Your task to perform on an android device: turn vacation reply on in the gmail app Image 0: 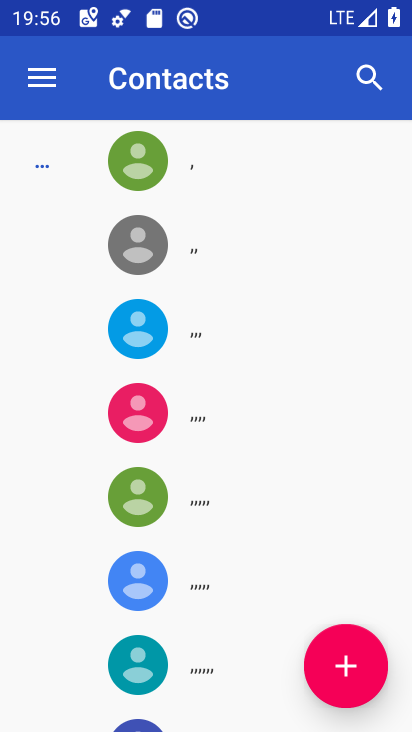
Step 0: press home button
Your task to perform on an android device: turn vacation reply on in the gmail app Image 1: 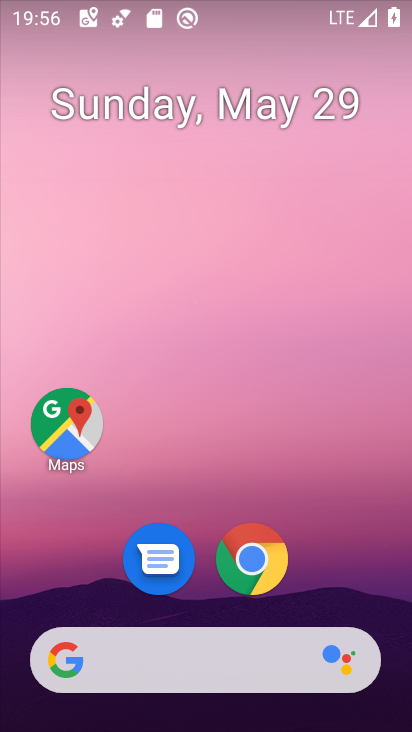
Step 1: drag from (381, 601) to (390, 214)
Your task to perform on an android device: turn vacation reply on in the gmail app Image 2: 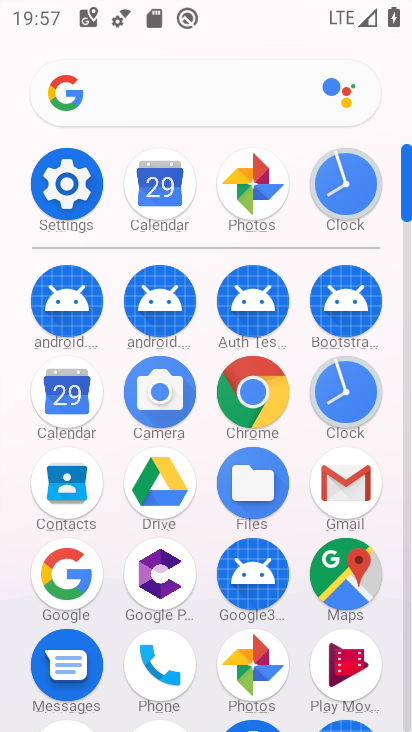
Step 2: click (341, 481)
Your task to perform on an android device: turn vacation reply on in the gmail app Image 3: 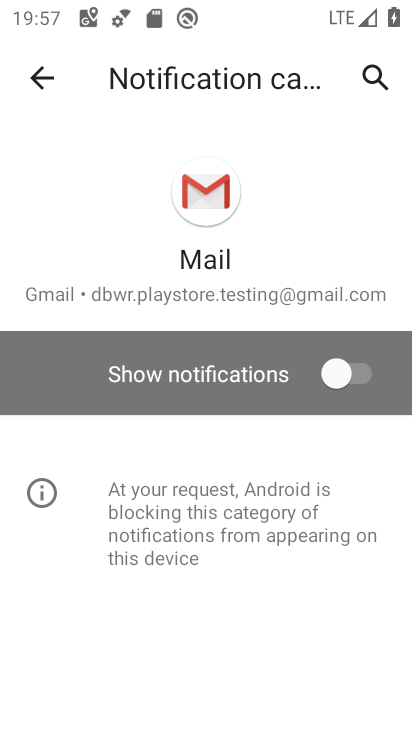
Step 3: click (21, 86)
Your task to perform on an android device: turn vacation reply on in the gmail app Image 4: 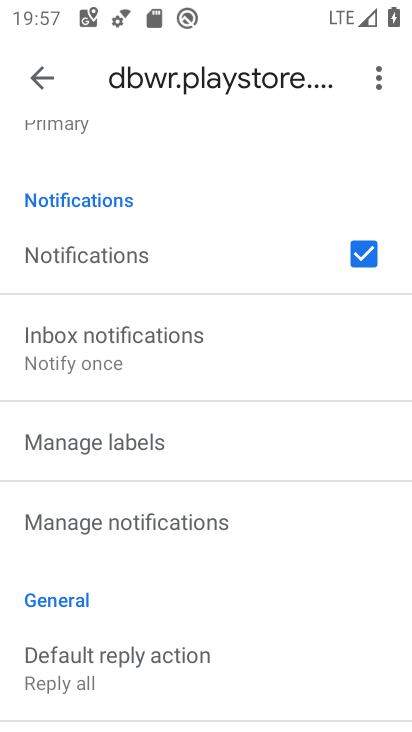
Step 4: drag from (326, 567) to (330, 450)
Your task to perform on an android device: turn vacation reply on in the gmail app Image 5: 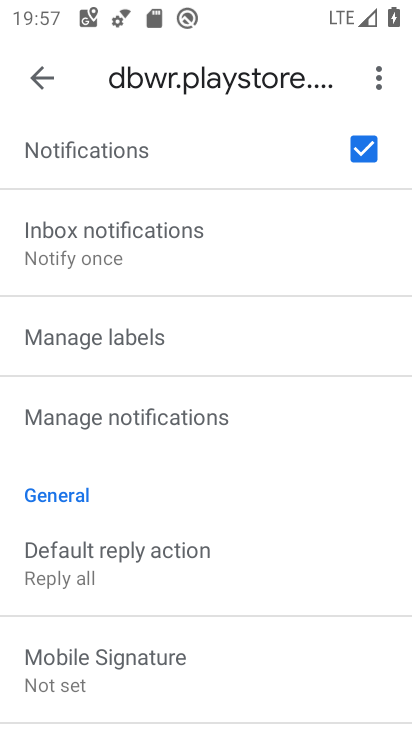
Step 5: drag from (356, 546) to (348, 494)
Your task to perform on an android device: turn vacation reply on in the gmail app Image 6: 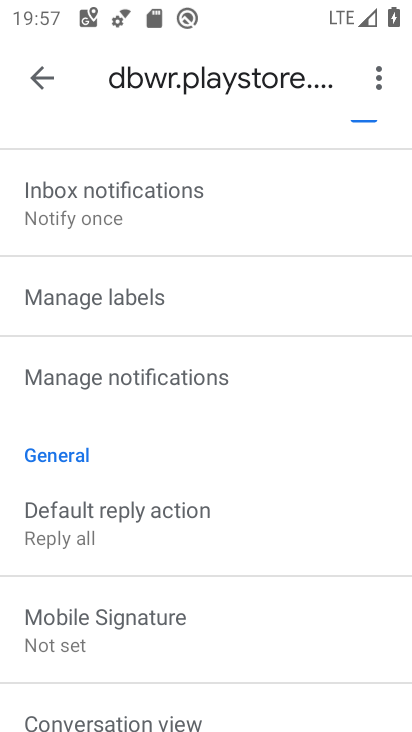
Step 6: click (365, 383)
Your task to perform on an android device: turn vacation reply on in the gmail app Image 7: 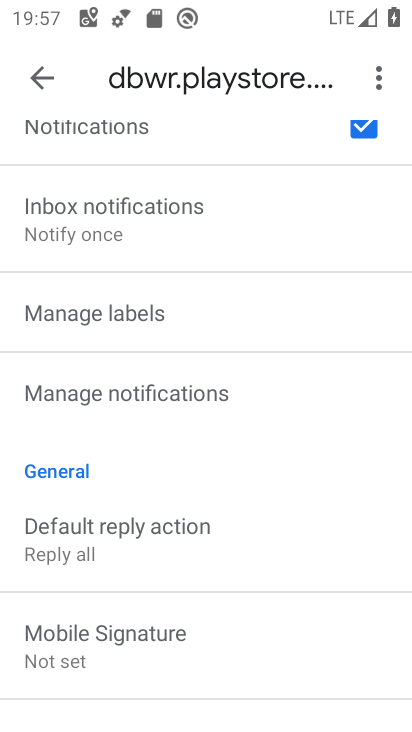
Step 7: click (377, 382)
Your task to perform on an android device: turn vacation reply on in the gmail app Image 8: 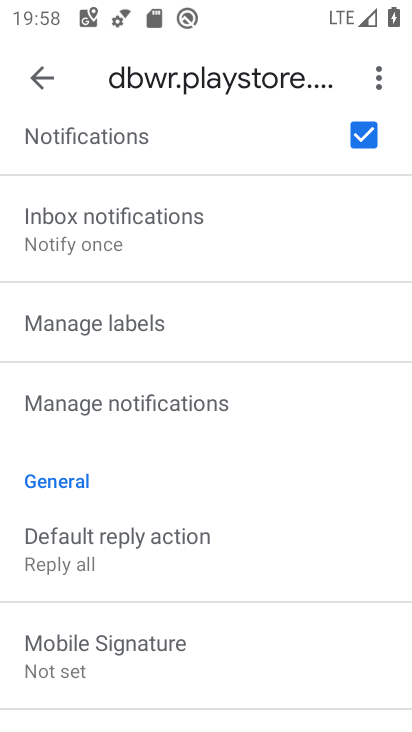
Step 8: drag from (320, 591) to (320, 485)
Your task to perform on an android device: turn vacation reply on in the gmail app Image 9: 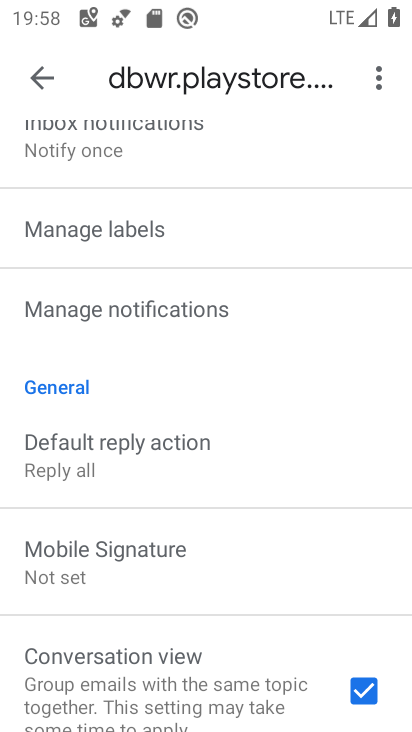
Step 9: drag from (325, 579) to (338, 500)
Your task to perform on an android device: turn vacation reply on in the gmail app Image 10: 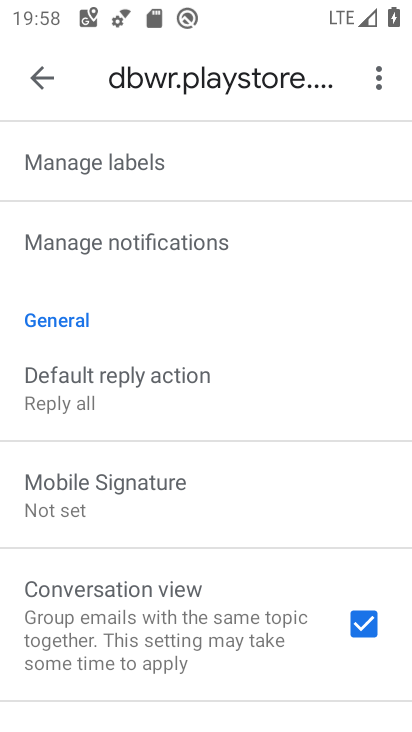
Step 10: drag from (364, 624) to (381, 523)
Your task to perform on an android device: turn vacation reply on in the gmail app Image 11: 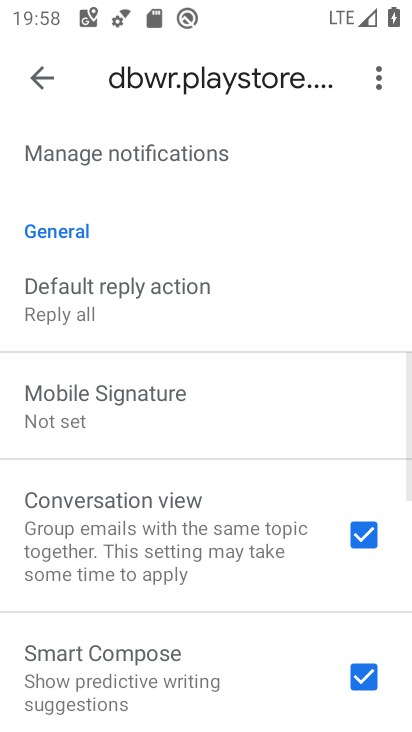
Step 11: drag from (388, 648) to (398, 527)
Your task to perform on an android device: turn vacation reply on in the gmail app Image 12: 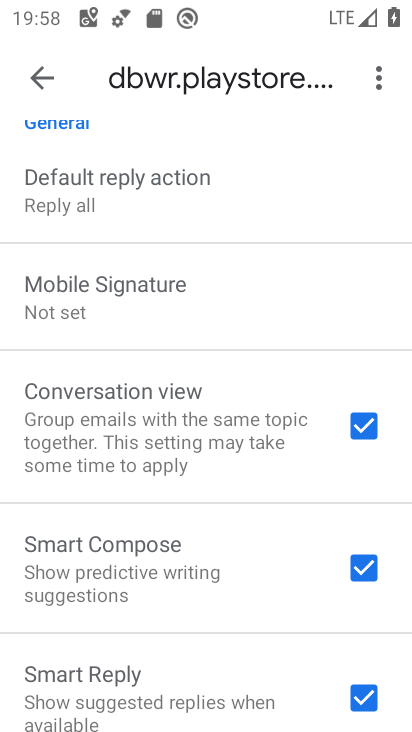
Step 12: drag from (312, 636) to (313, 552)
Your task to perform on an android device: turn vacation reply on in the gmail app Image 13: 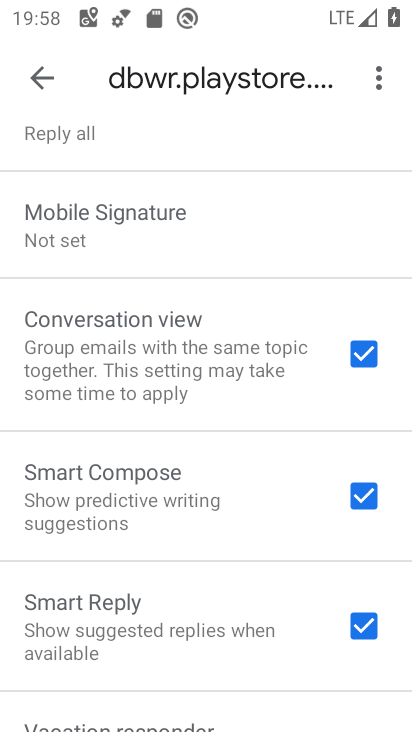
Step 13: click (343, 527)
Your task to perform on an android device: turn vacation reply on in the gmail app Image 14: 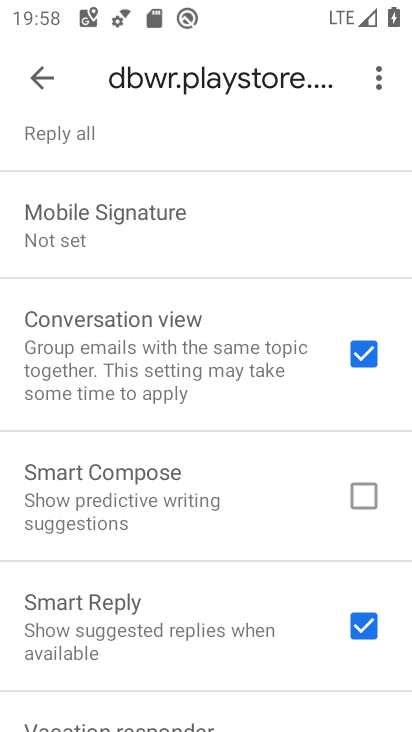
Step 14: drag from (324, 641) to (330, 517)
Your task to perform on an android device: turn vacation reply on in the gmail app Image 15: 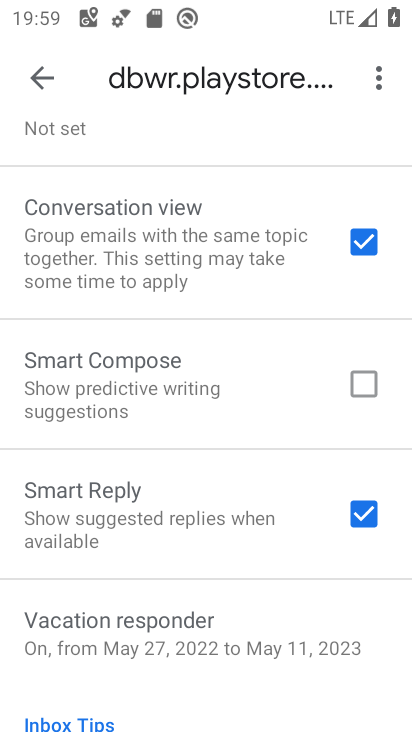
Step 15: click (270, 640)
Your task to perform on an android device: turn vacation reply on in the gmail app Image 16: 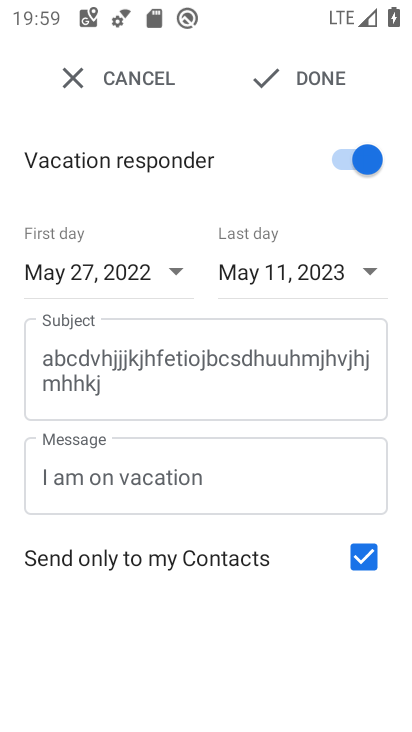
Step 16: task complete